Your task to perform on an android device: turn off notifications settings in the gmail app Image 0: 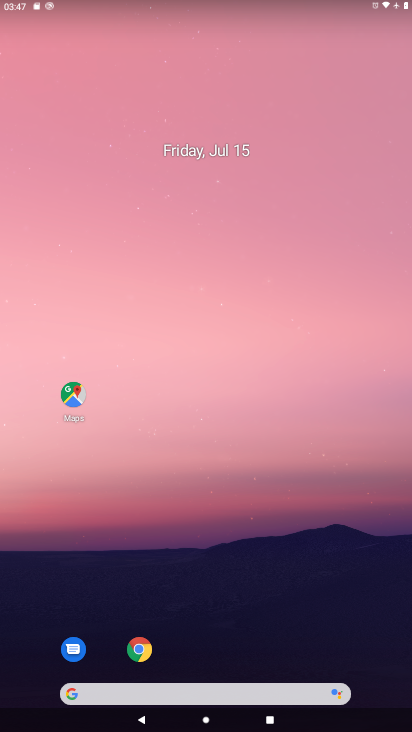
Step 0: drag from (378, 678) to (358, 86)
Your task to perform on an android device: turn off notifications settings in the gmail app Image 1: 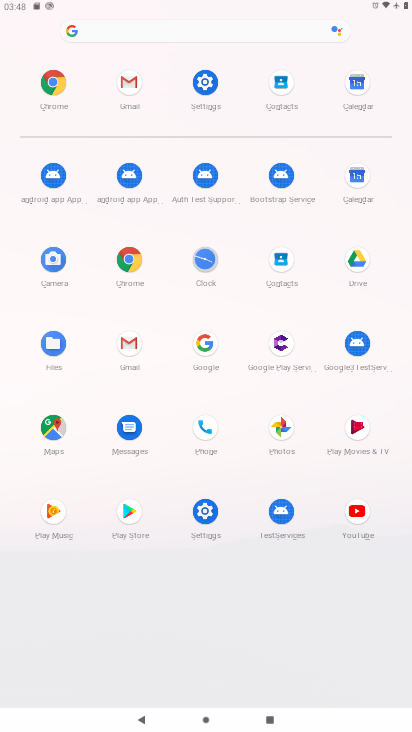
Step 1: click (126, 345)
Your task to perform on an android device: turn off notifications settings in the gmail app Image 2: 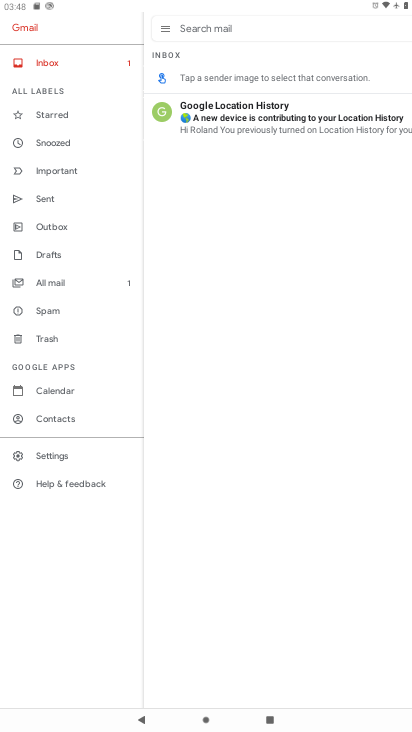
Step 2: click (41, 449)
Your task to perform on an android device: turn off notifications settings in the gmail app Image 3: 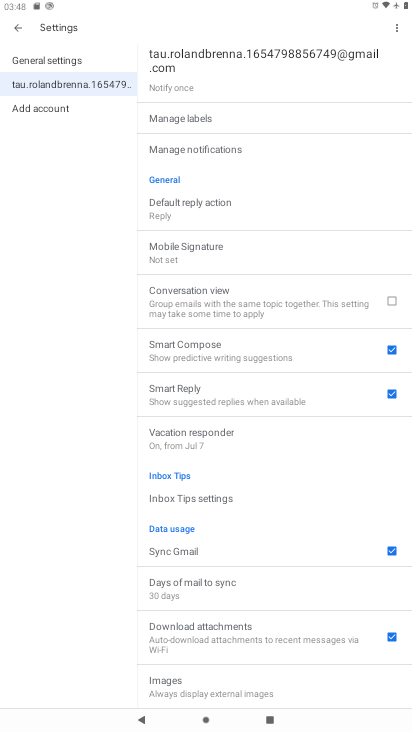
Step 3: click (192, 146)
Your task to perform on an android device: turn off notifications settings in the gmail app Image 4: 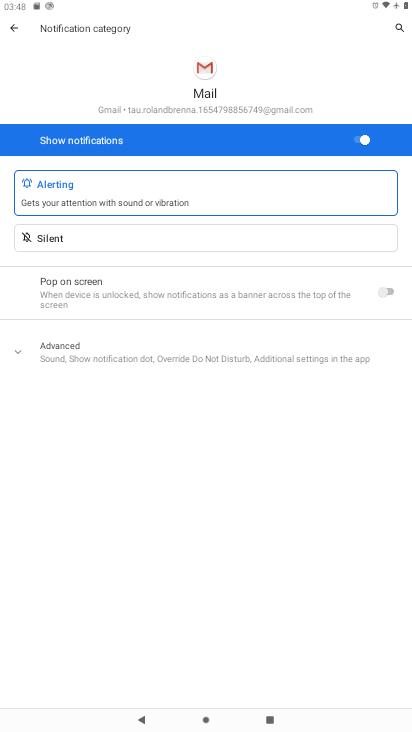
Step 4: click (353, 137)
Your task to perform on an android device: turn off notifications settings in the gmail app Image 5: 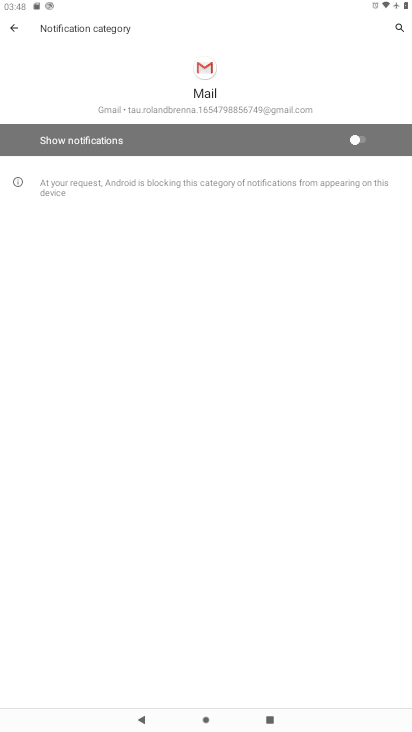
Step 5: task complete